Your task to perform on an android device: turn on showing notifications on the lock screen Image 0: 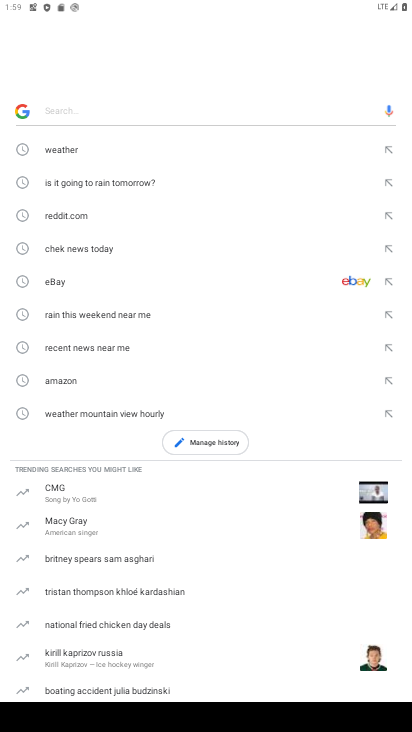
Step 0: press home button
Your task to perform on an android device: turn on showing notifications on the lock screen Image 1: 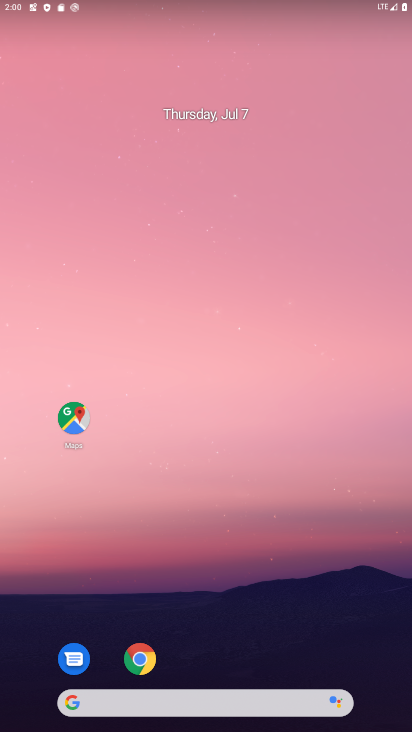
Step 1: drag from (245, 630) to (213, 66)
Your task to perform on an android device: turn on showing notifications on the lock screen Image 2: 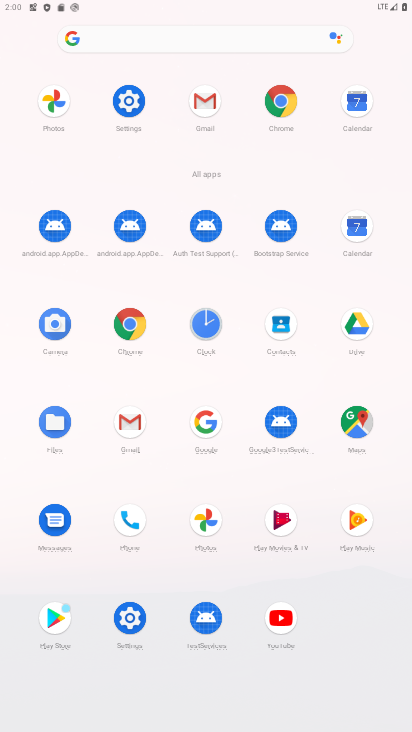
Step 2: click (129, 99)
Your task to perform on an android device: turn on showing notifications on the lock screen Image 3: 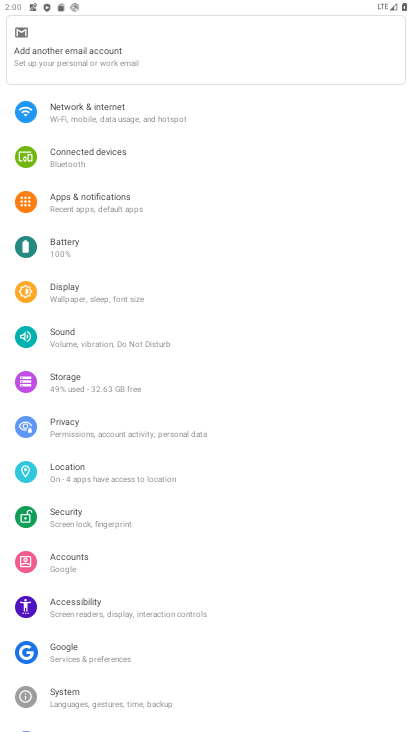
Step 3: click (83, 195)
Your task to perform on an android device: turn on showing notifications on the lock screen Image 4: 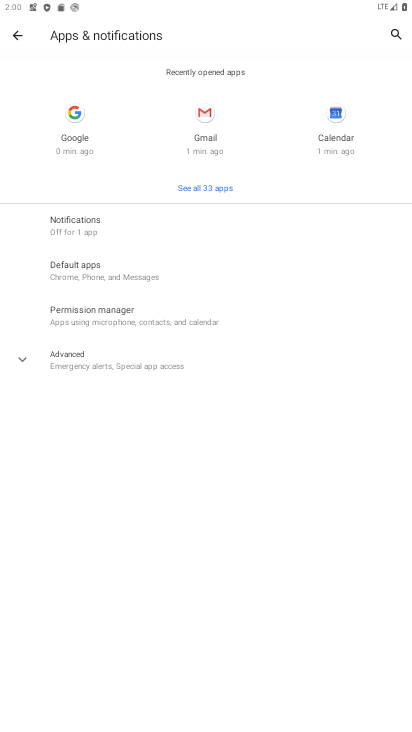
Step 4: click (80, 227)
Your task to perform on an android device: turn on showing notifications on the lock screen Image 5: 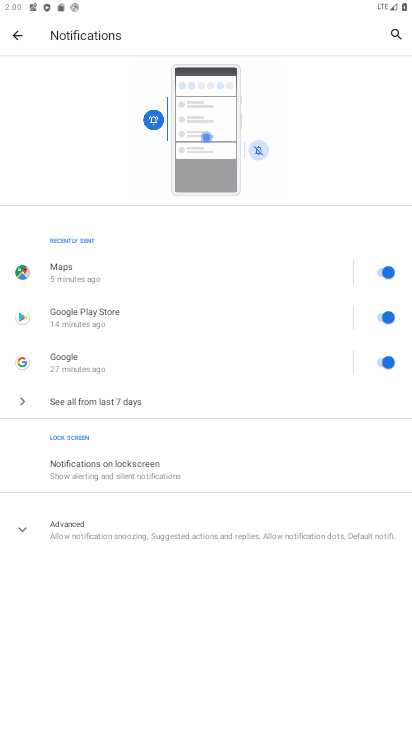
Step 5: click (119, 473)
Your task to perform on an android device: turn on showing notifications on the lock screen Image 6: 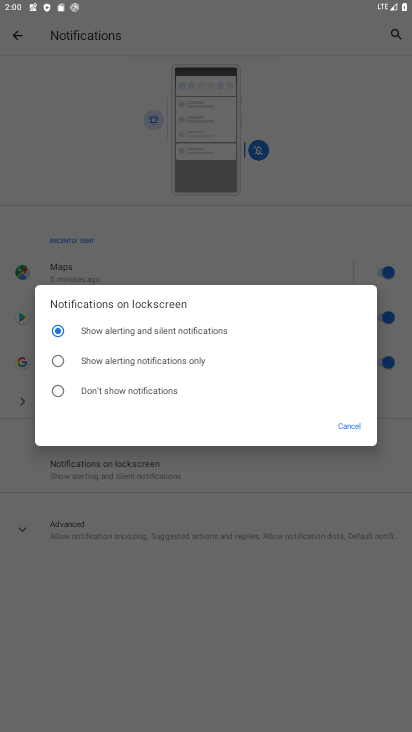
Step 6: click (57, 331)
Your task to perform on an android device: turn on showing notifications on the lock screen Image 7: 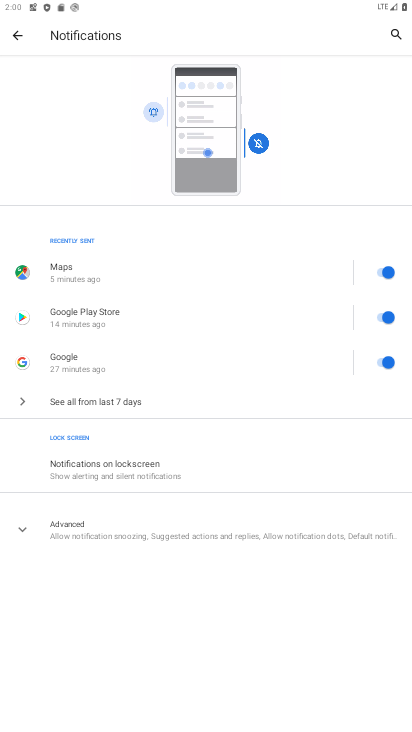
Step 7: task complete